Your task to perform on an android device: Search for custom wallets on Etsy. Image 0: 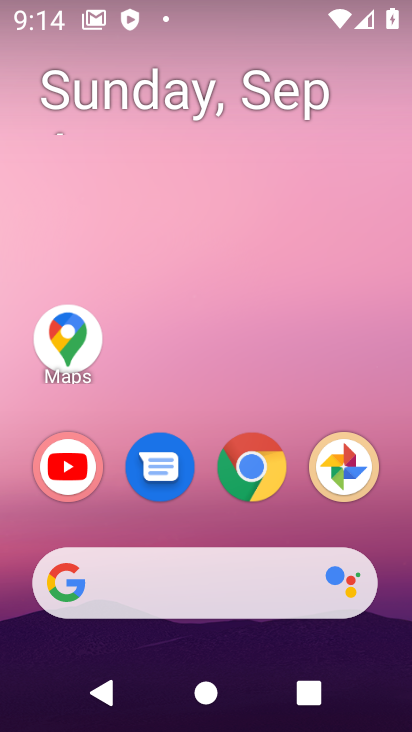
Step 0: click (247, 475)
Your task to perform on an android device: Search for custom wallets on Etsy. Image 1: 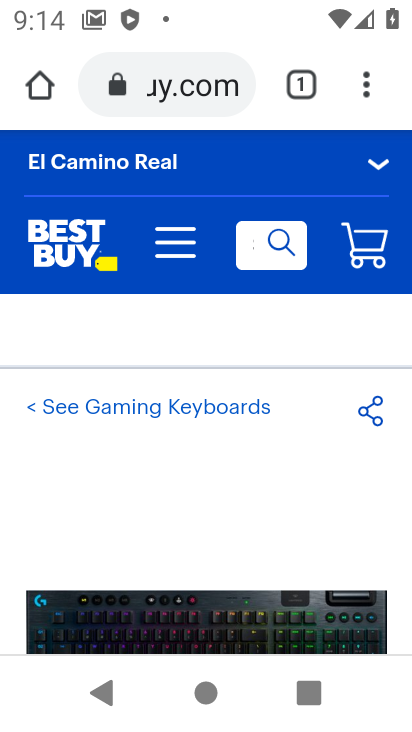
Step 1: drag from (133, 106) to (115, 183)
Your task to perform on an android device: Search for custom wallets on Etsy. Image 2: 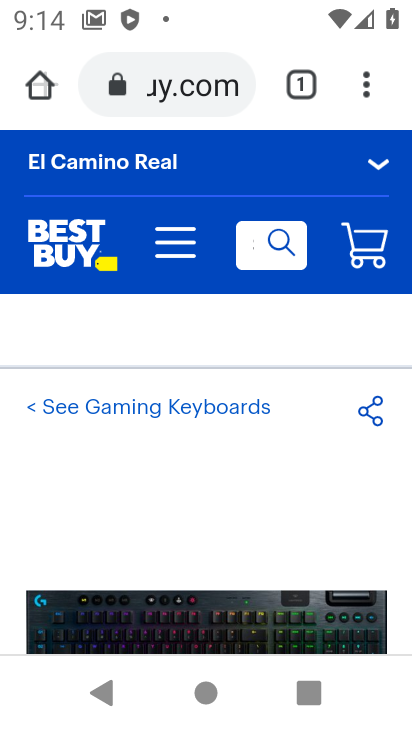
Step 2: drag from (153, 71) to (99, 11)
Your task to perform on an android device: Search for custom wallets on Etsy. Image 3: 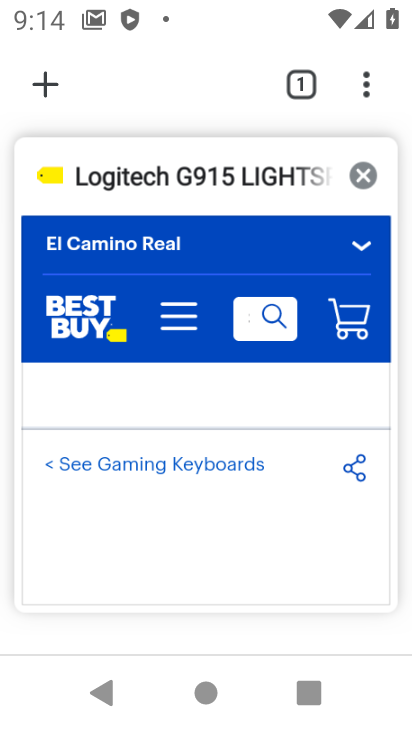
Step 3: click (303, 173)
Your task to perform on an android device: Search for custom wallets on Etsy. Image 4: 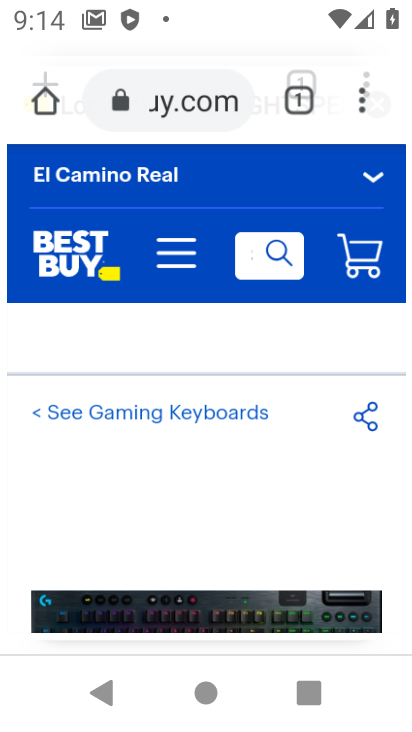
Step 4: click (369, 178)
Your task to perform on an android device: Search for custom wallets on Etsy. Image 5: 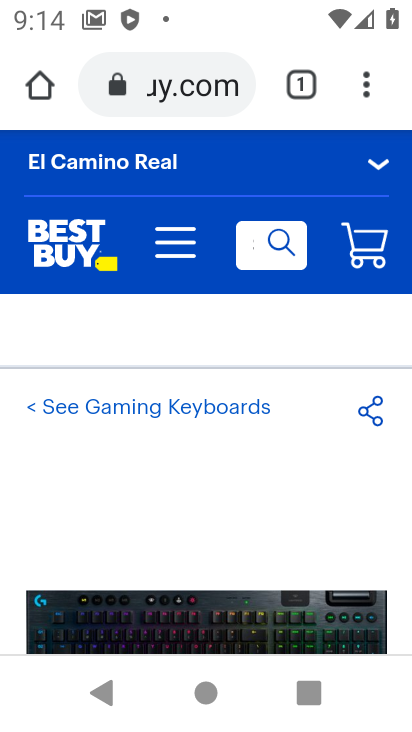
Step 5: click (188, 78)
Your task to perform on an android device: Search for custom wallets on Etsy. Image 6: 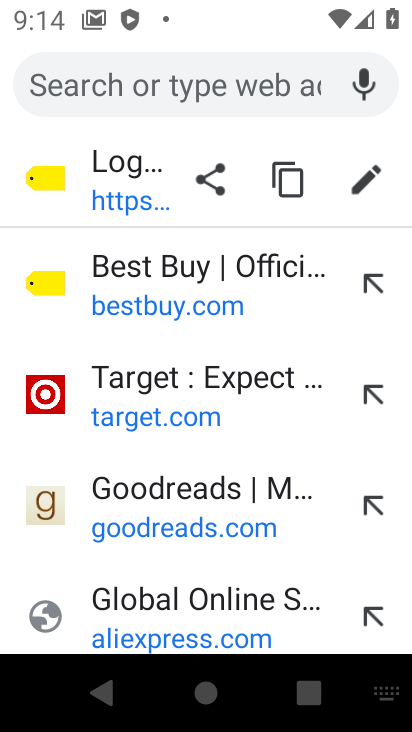
Step 6: type "etsy"
Your task to perform on an android device: Search for custom wallets on Etsy. Image 7: 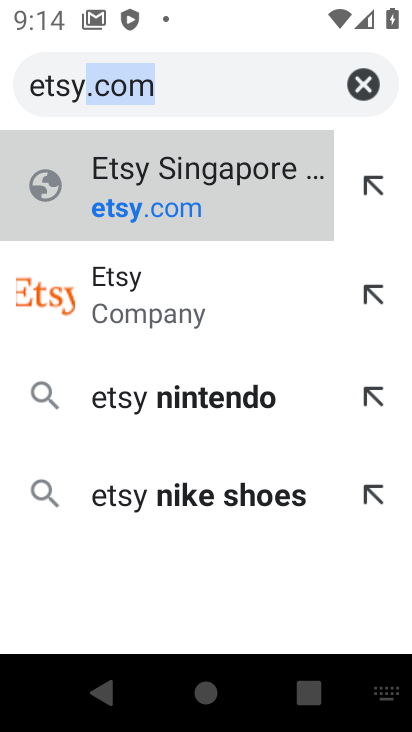
Step 7: type ""
Your task to perform on an android device: Search for custom wallets on Etsy. Image 8: 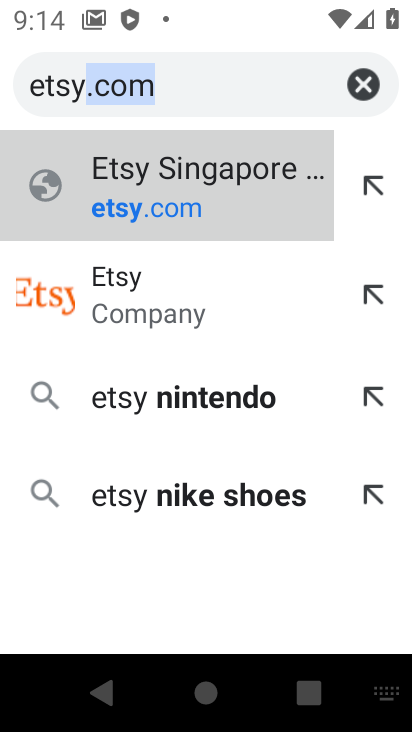
Step 8: click (148, 310)
Your task to perform on an android device: Search for custom wallets on Etsy. Image 9: 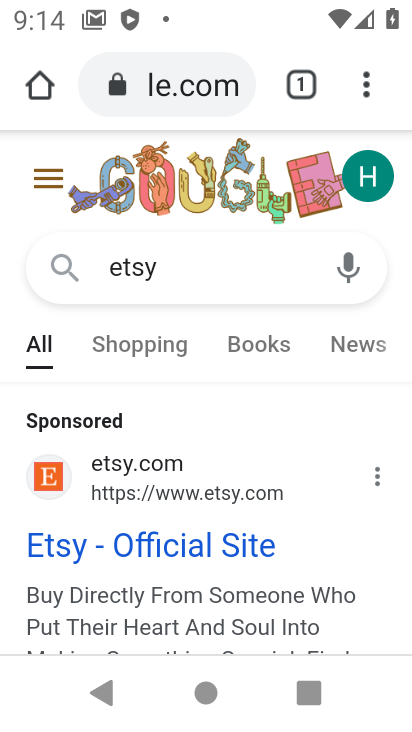
Step 9: click (166, 551)
Your task to perform on an android device: Search for custom wallets on Etsy. Image 10: 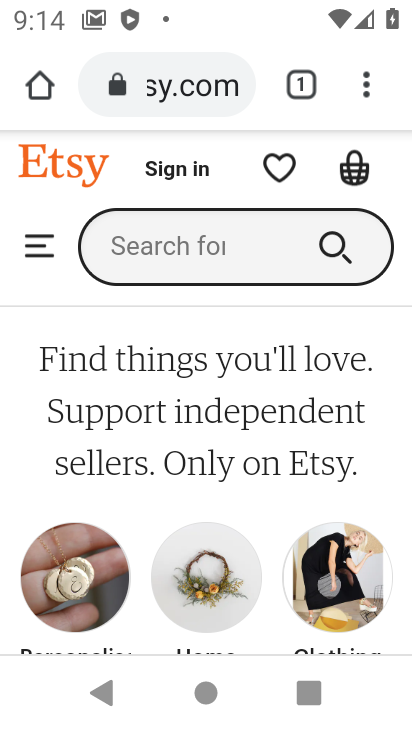
Step 10: click (171, 247)
Your task to perform on an android device: Search for custom wallets on Etsy. Image 11: 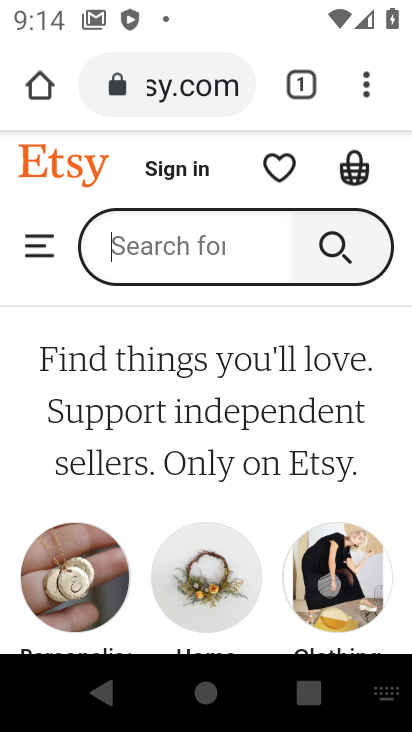
Step 11: type "custom wallets"
Your task to perform on an android device: Search for custom wallets on Etsy. Image 12: 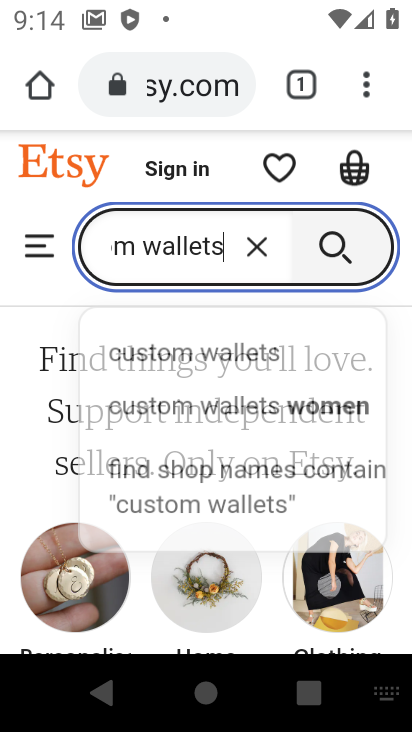
Step 12: type ""
Your task to perform on an android device: Search for custom wallets on Etsy. Image 13: 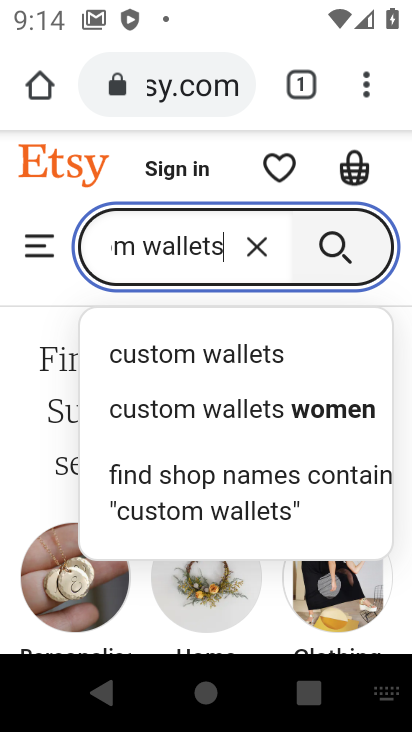
Step 13: click (157, 347)
Your task to perform on an android device: Search for custom wallets on Etsy. Image 14: 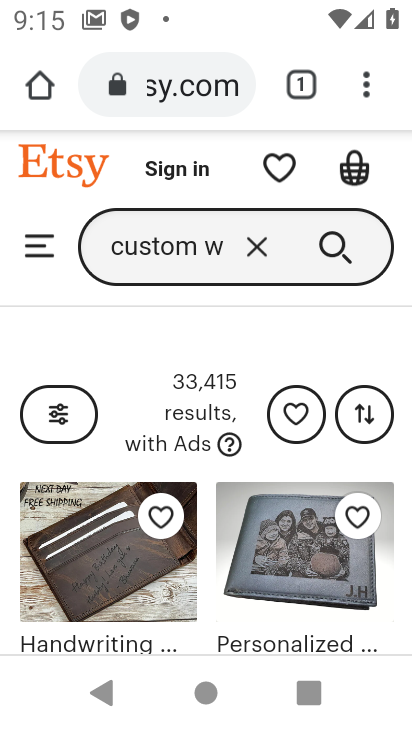
Step 14: drag from (180, 576) to (220, 221)
Your task to perform on an android device: Search for custom wallets on Etsy. Image 15: 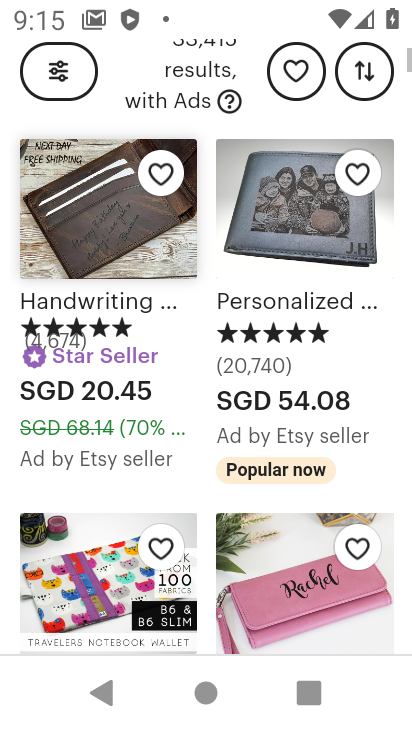
Step 15: drag from (312, 380) to (312, 246)
Your task to perform on an android device: Search for custom wallets on Etsy. Image 16: 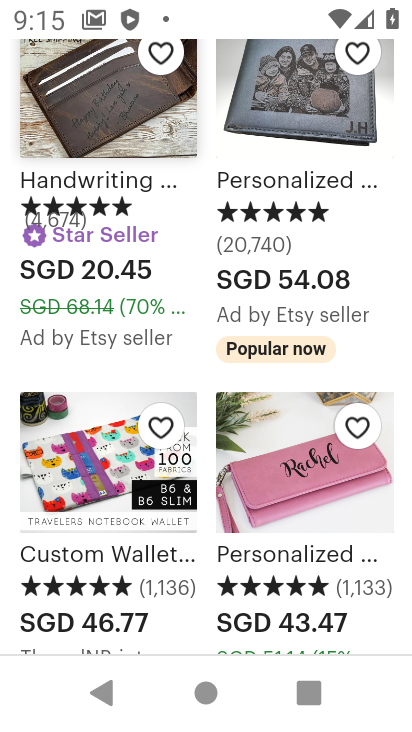
Step 16: drag from (344, 360) to (344, 157)
Your task to perform on an android device: Search for custom wallets on Etsy. Image 17: 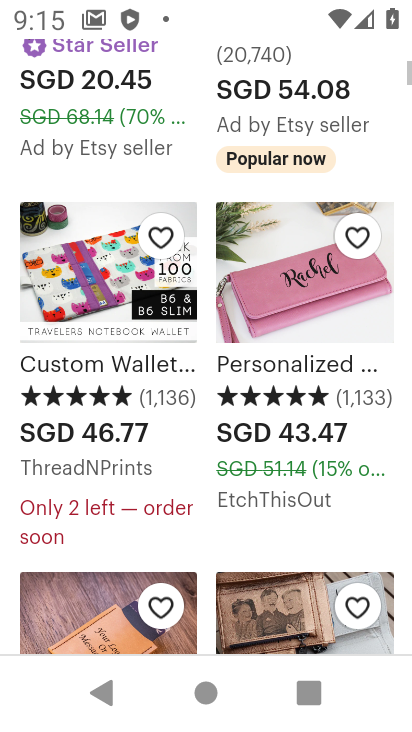
Step 17: drag from (311, 384) to (317, 139)
Your task to perform on an android device: Search for custom wallets on Etsy. Image 18: 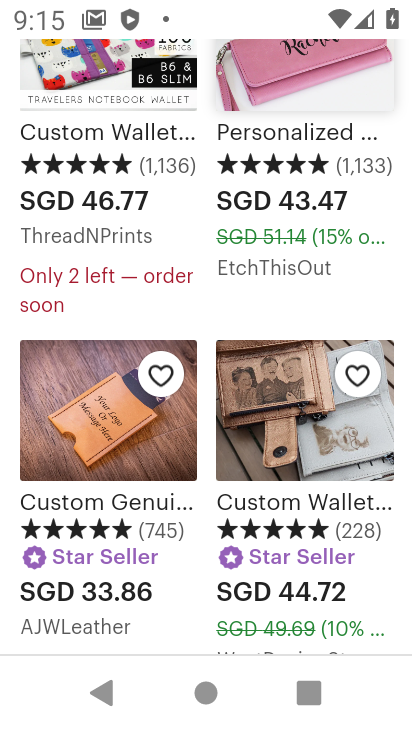
Step 18: drag from (353, 492) to (313, 203)
Your task to perform on an android device: Search for custom wallets on Etsy. Image 19: 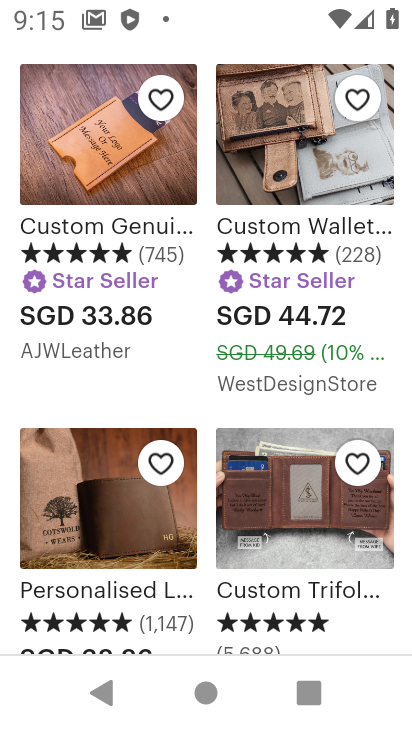
Step 19: drag from (295, 526) to (313, 121)
Your task to perform on an android device: Search for custom wallets on Etsy. Image 20: 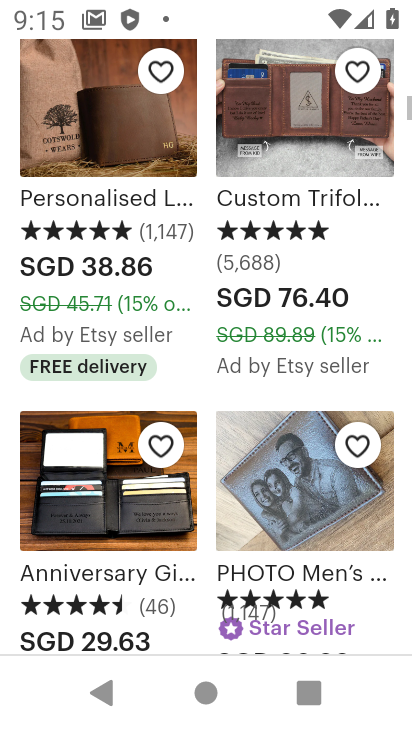
Step 20: drag from (275, 253) to (282, 185)
Your task to perform on an android device: Search for custom wallets on Etsy. Image 21: 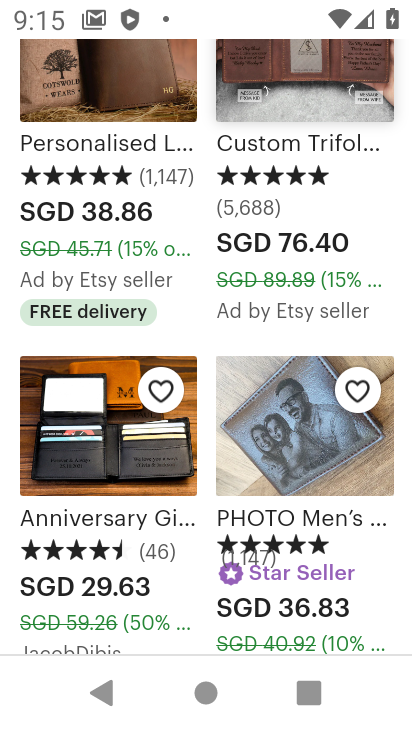
Step 21: drag from (234, 379) to (236, 230)
Your task to perform on an android device: Search for custom wallets on Etsy. Image 22: 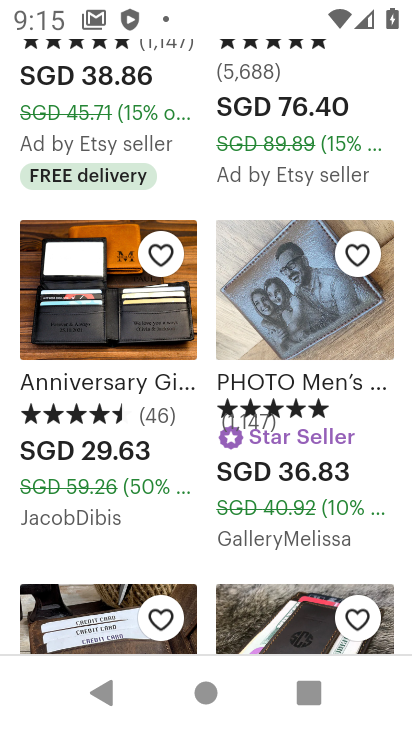
Step 22: drag from (146, 522) to (193, 122)
Your task to perform on an android device: Search for custom wallets on Etsy. Image 23: 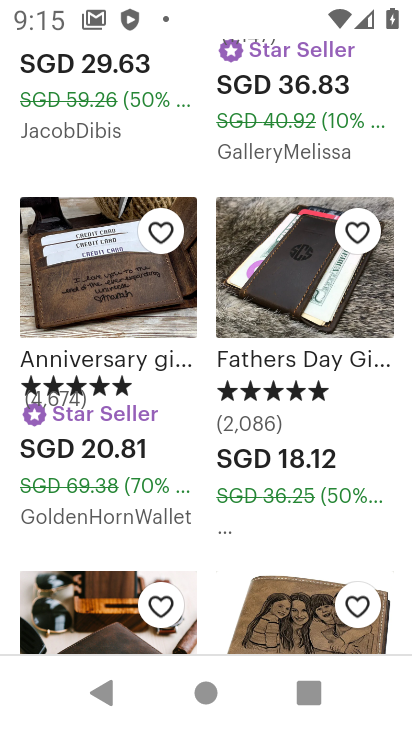
Step 23: drag from (359, 529) to (396, 170)
Your task to perform on an android device: Search for custom wallets on Etsy. Image 24: 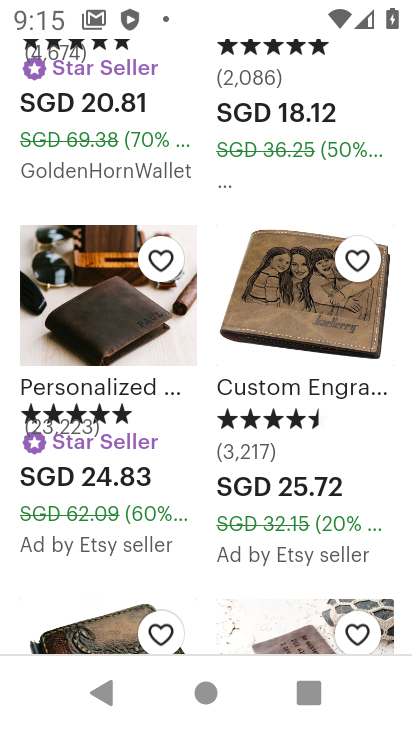
Step 24: drag from (388, 403) to (397, 117)
Your task to perform on an android device: Search for custom wallets on Etsy. Image 25: 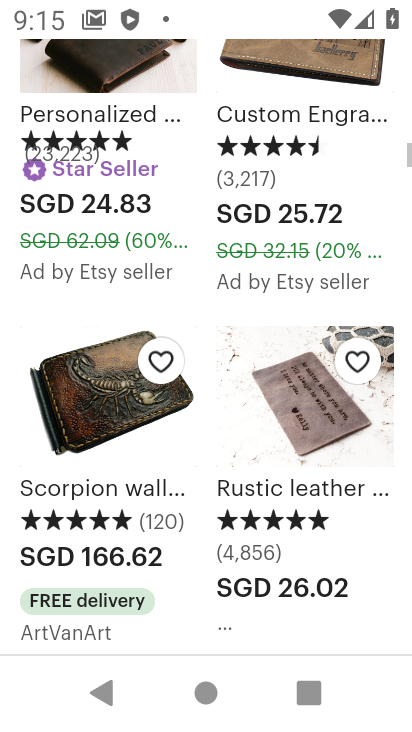
Step 25: click (390, 237)
Your task to perform on an android device: Search for custom wallets on Etsy. Image 26: 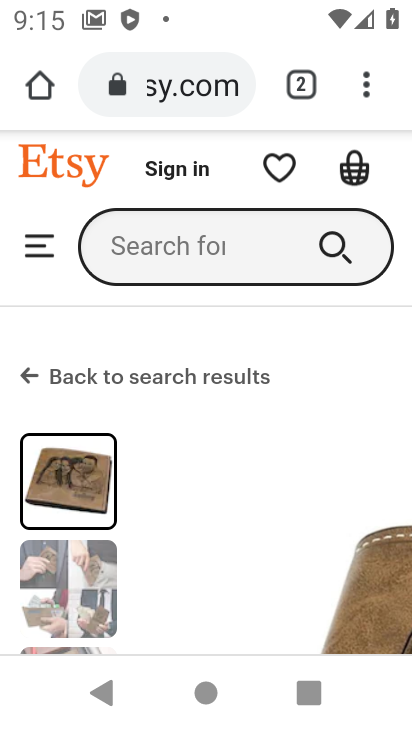
Step 26: task complete